Your task to perform on an android device: Turn off the flashlight Image 0: 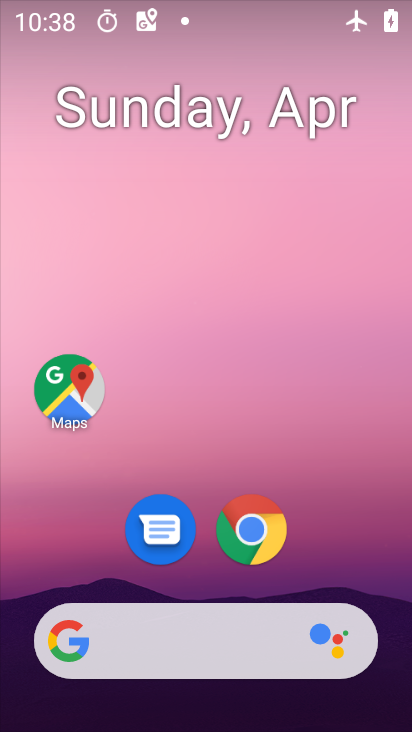
Step 0: drag from (213, 481) to (203, 239)
Your task to perform on an android device: Turn off the flashlight Image 1: 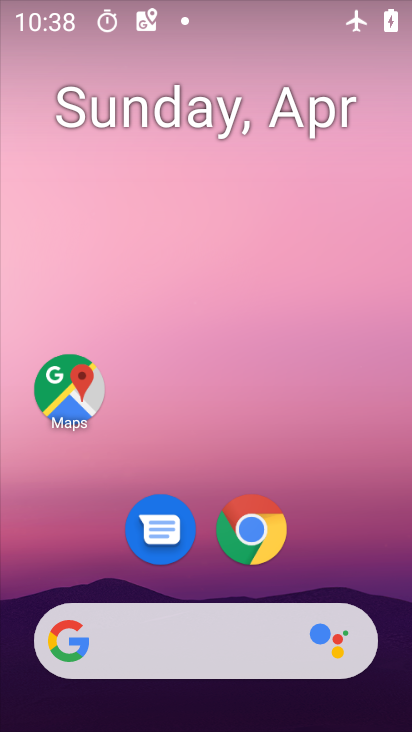
Step 1: task complete